Your task to perform on an android device: check google app version Image 0: 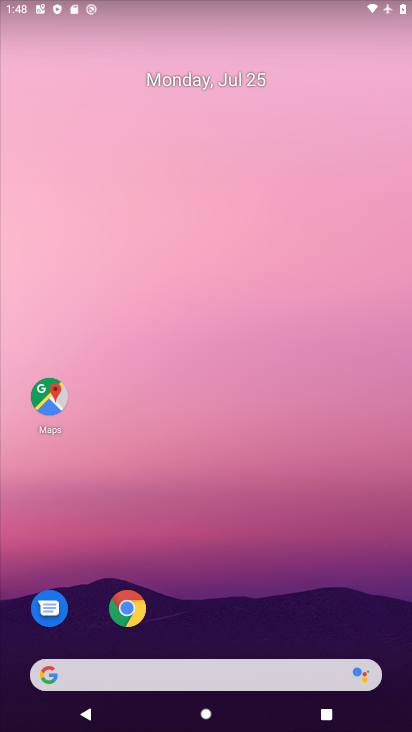
Step 0: drag from (189, 617) to (180, 111)
Your task to perform on an android device: check google app version Image 1: 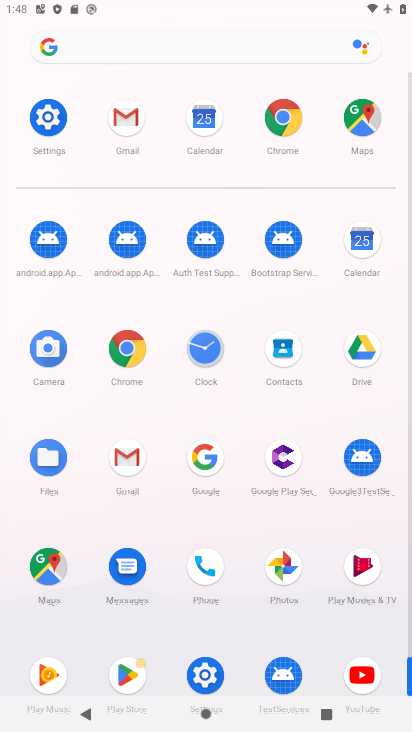
Step 1: click (195, 464)
Your task to perform on an android device: check google app version Image 2: 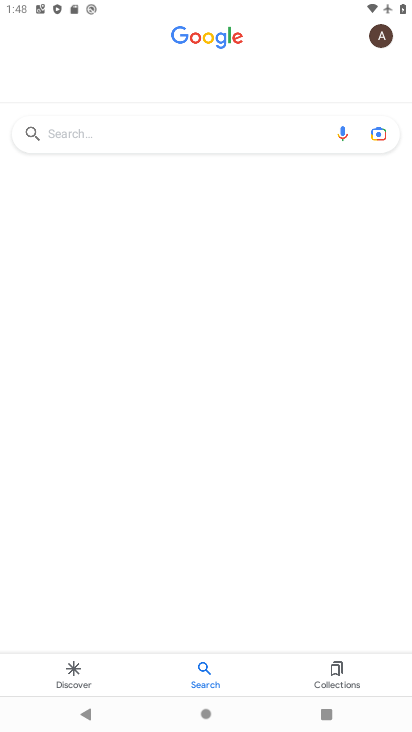
Step 2: click (377, 35)
Your task to perform on an android device: check google app version Image 3: 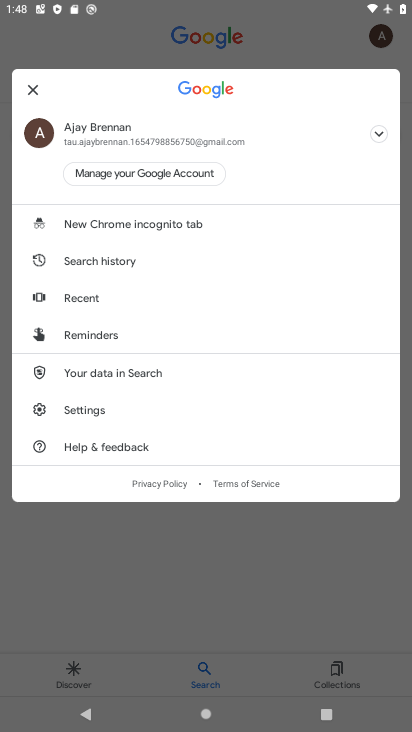
Step 3: click (63, 409)
Your task to perform on an android device: check google app version Image 4: 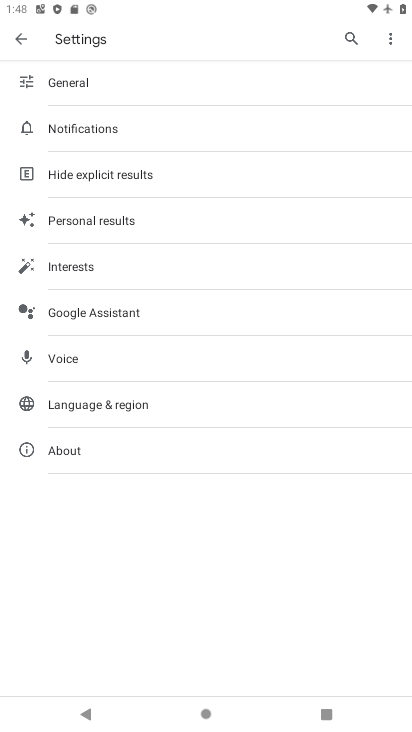
Step 4: click (95, 448)
Your task to perform on an android device: check google app version Image 5: 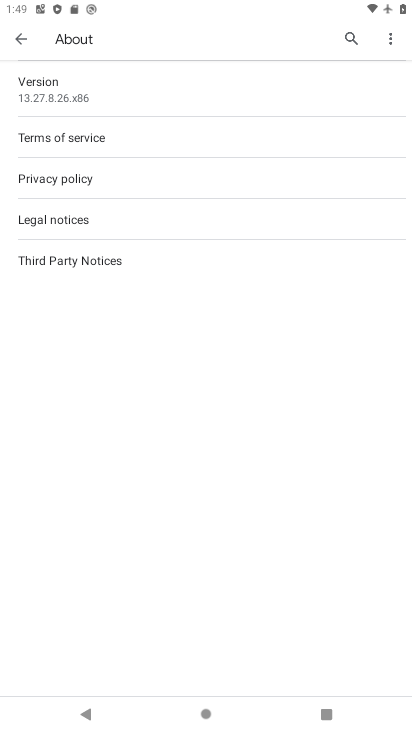
Step 5: click (268, 94)
Your task to perform on an android device: check google app version Image 6: 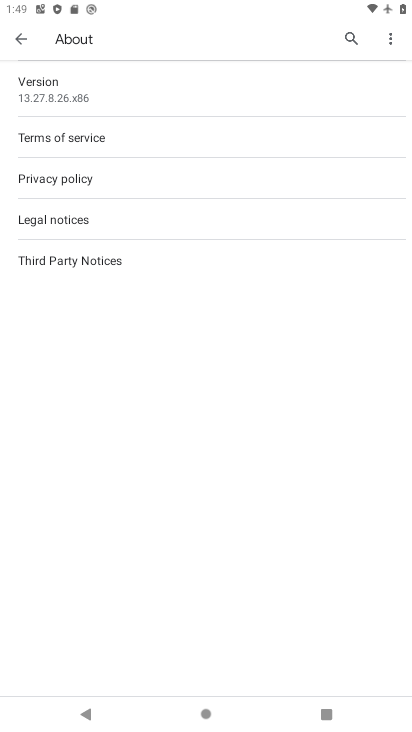
Step 6: task complete